Your task to perform on an android device: allow notifications from all sites in the chrome app Image 0: 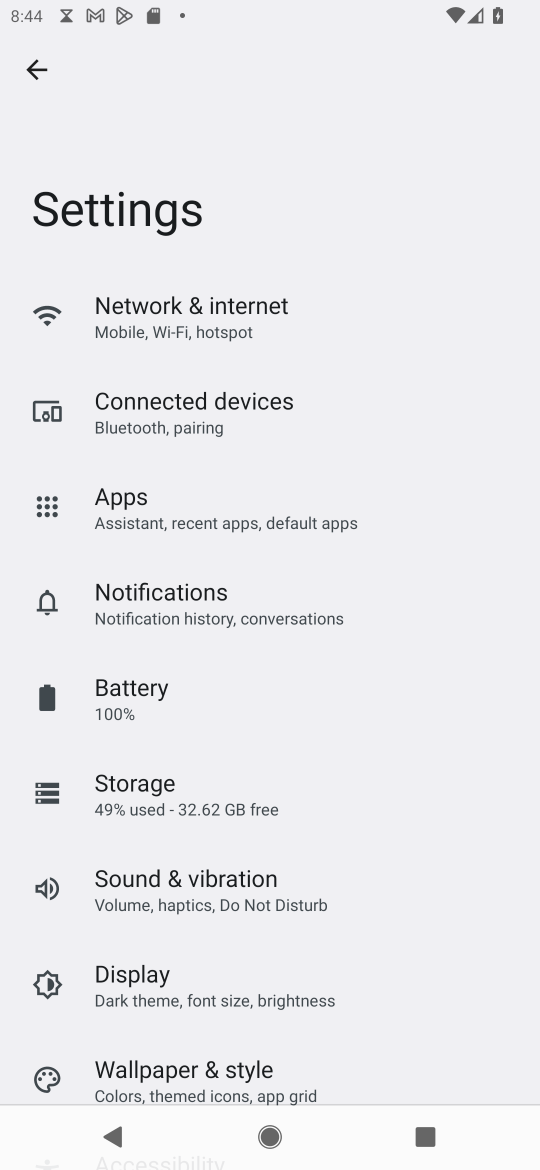
Step 0: press home button
Your task to perform on an android device: allow notifications from all sites in the chrome app Image 1: 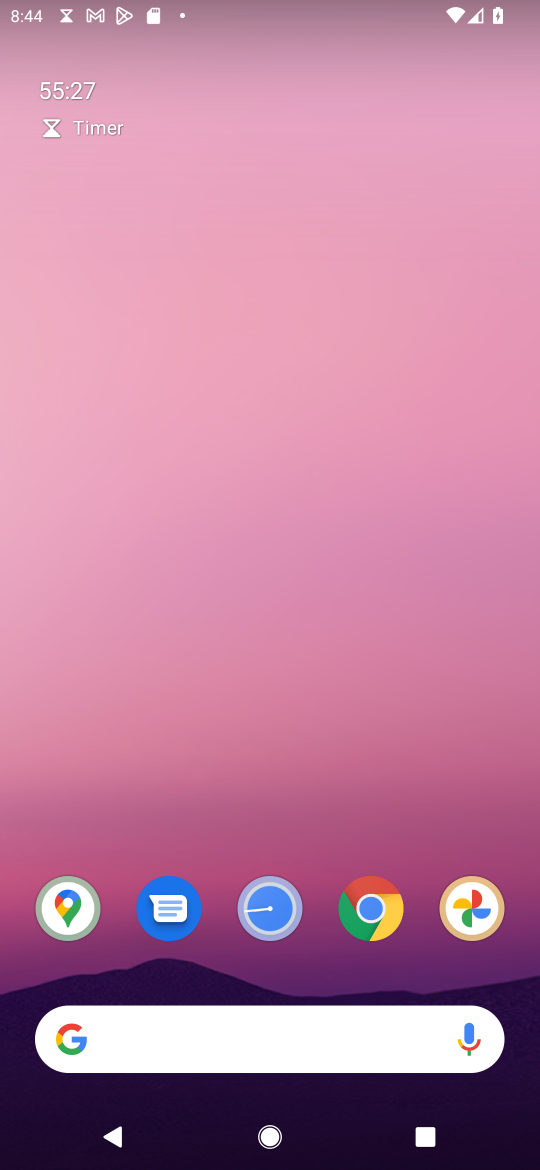
Step 1: click (360, 908)
Your task to perform on an android device: allow notifications from all sites in the chrome app Image 2: 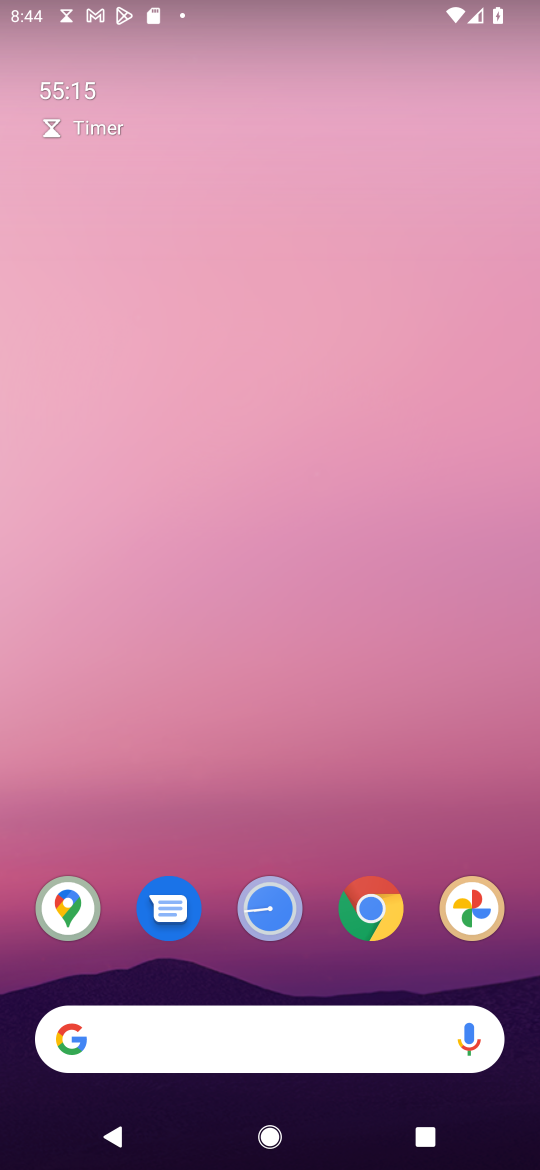
Step 2: click (392, 913)
Your task to perform on an android device: allow notifications from all sites in the chrome app Image 3: 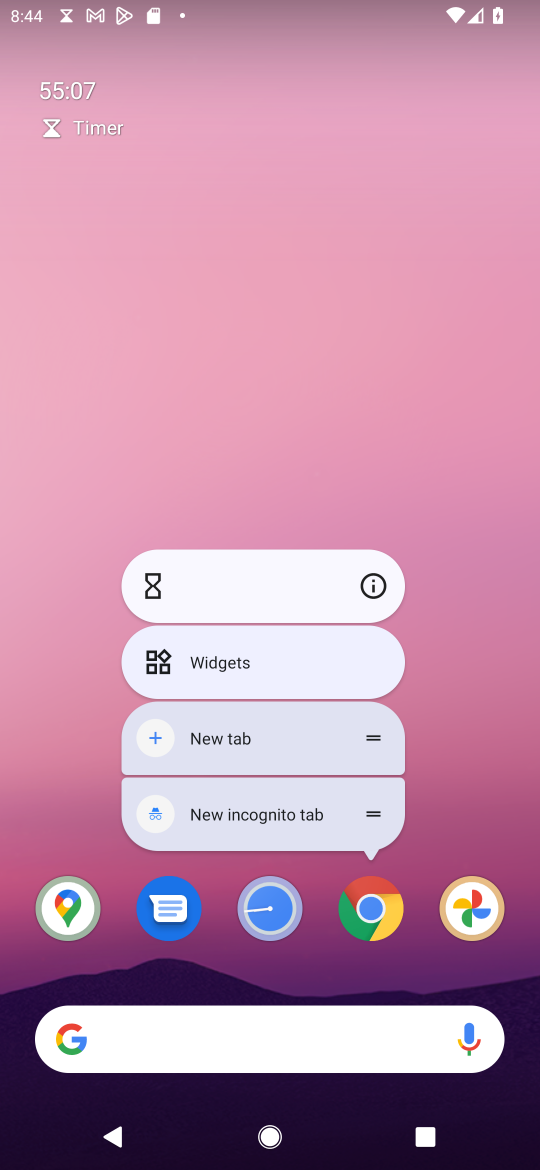
Step 3: click (382, 906)
Your task to perform on an android device: allow notifications from all sites in the chrome app Image 4: 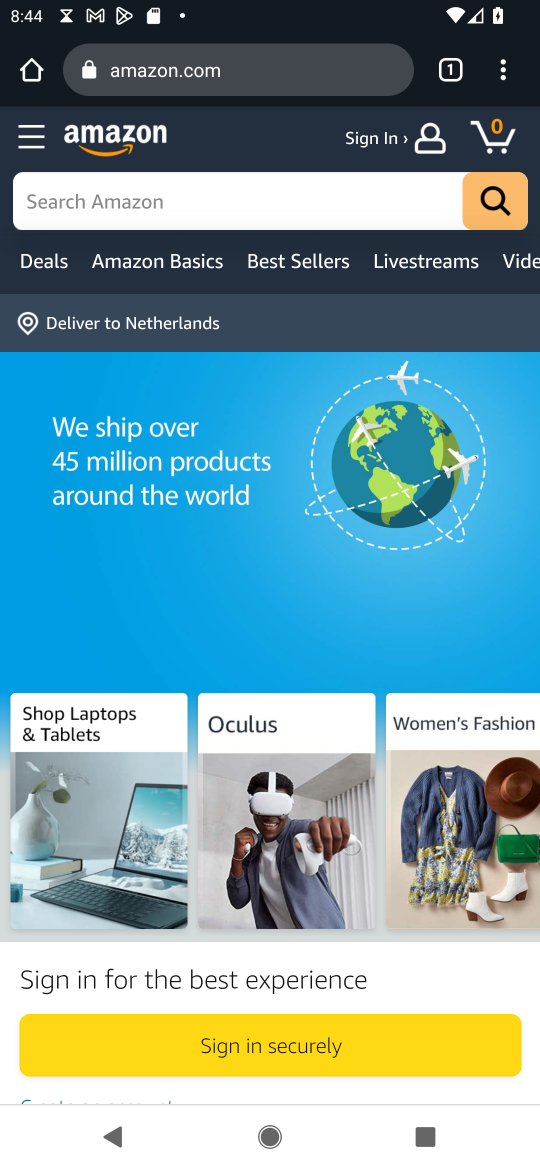
Step 4: drag from (499, 58) to (324, 947)
Your task to perform on an android device: allow notifications from all sites in the chrome app Image 5: 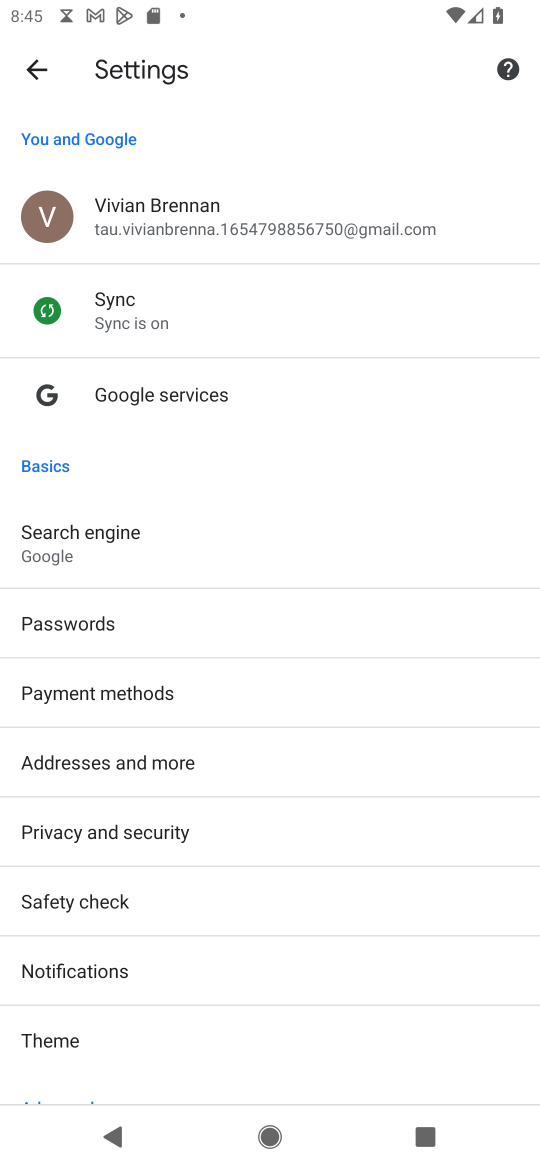
Step 5: drag from (244, 938) to (251, 228)
Your task to perform on an android device: allow notifications from all sites in the chrome app Image 6: 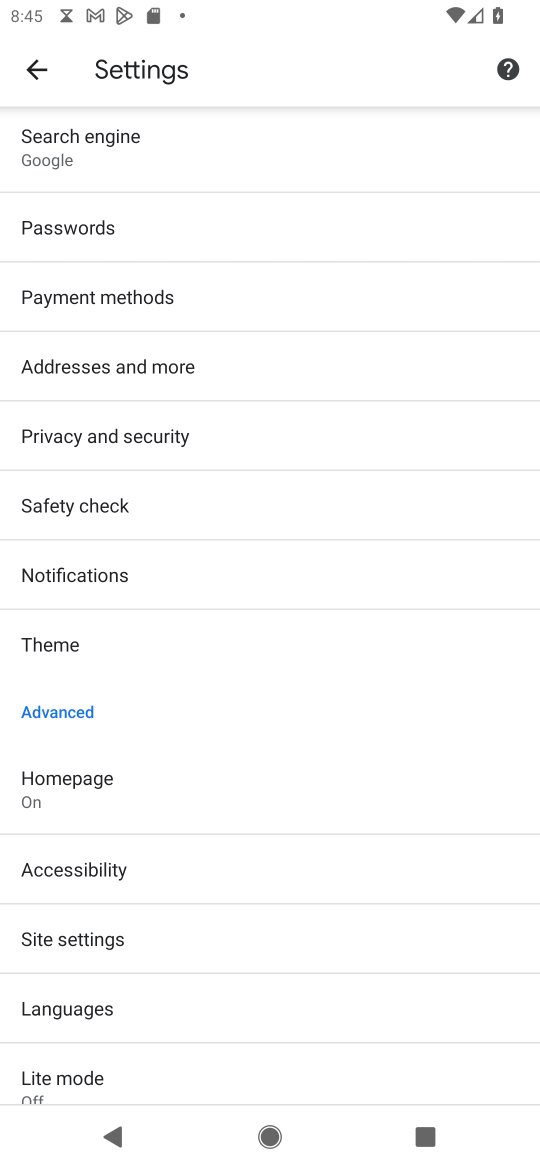
Step 6: click (140, 934)
Your task to perform on an android device: allow notifications from all sites in the chrome app Image 7: 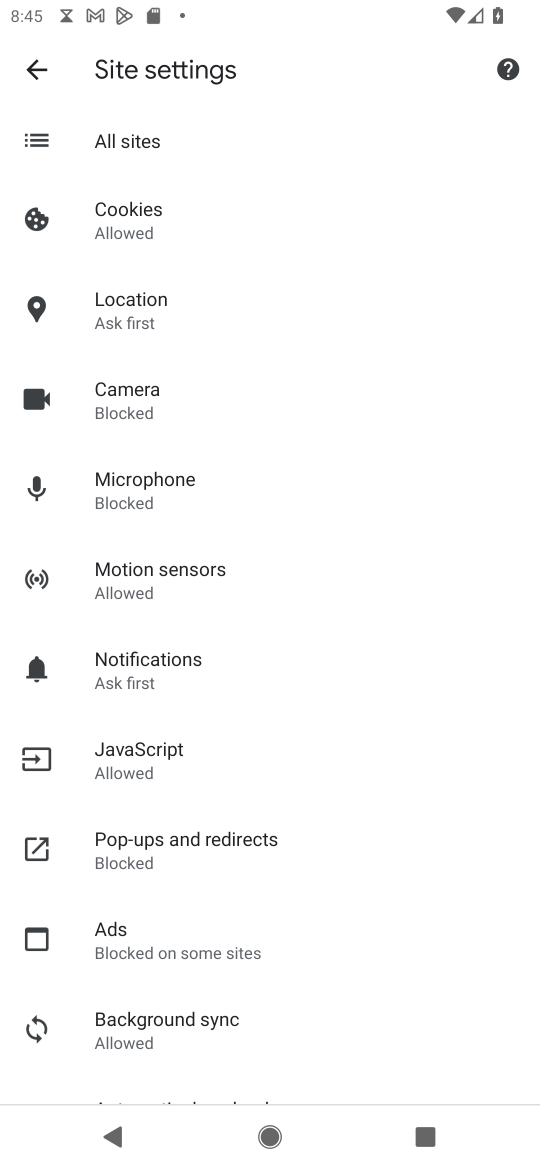
Step 7: click (178, 679)
Your task to perform on an android device: allow notifications from all sites in the chrome app Image 8: 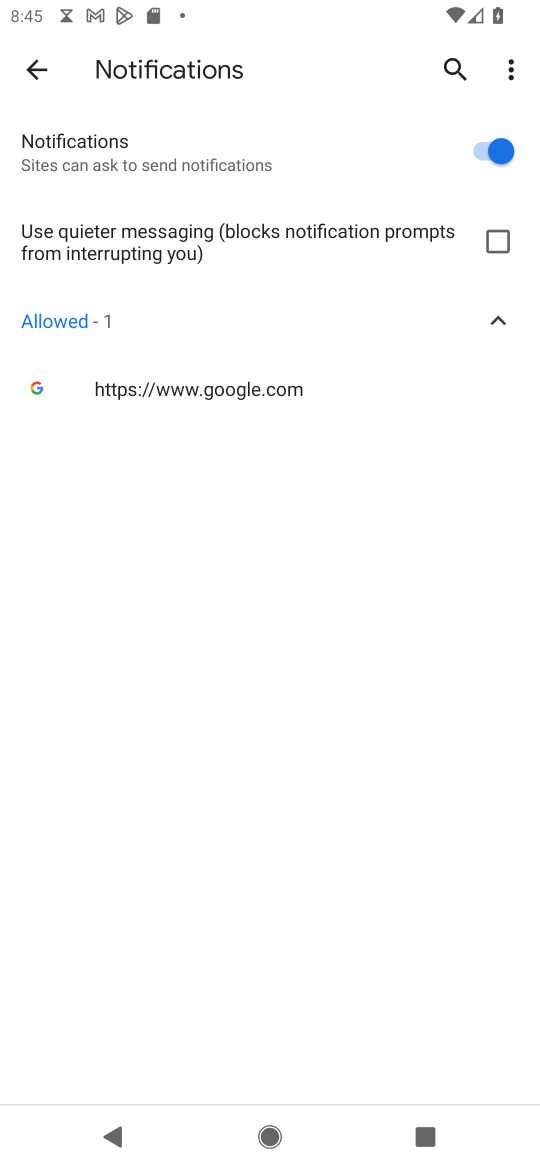
Step 8: task complete